Your task to perform on an android device: turn on sleep mode Image 0: 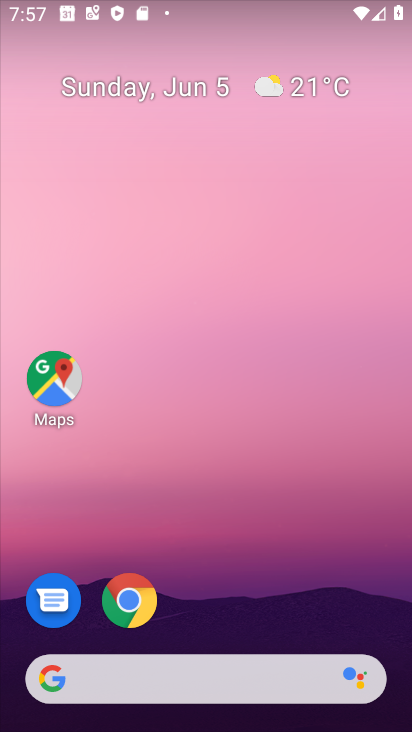
Step 0: drag from (238, 563) to (237, 0)
Your task to perform on an android device: turn on sleep mode Image 1: 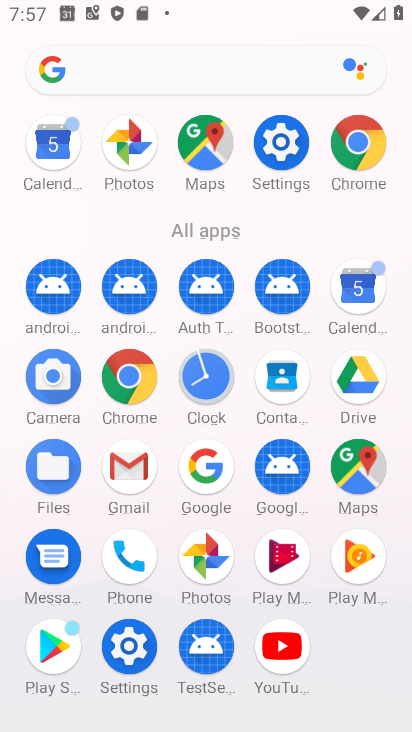
Step 1: click (277, 133)
Your task to perform on an android device: turn on sleep mode Image 2: 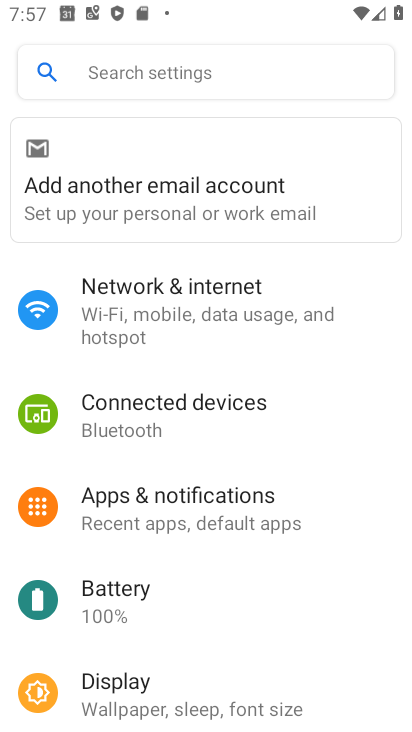
Step 2: click (208, 689)
Your task to perform on an android device: turn on sleep mode Image 3: 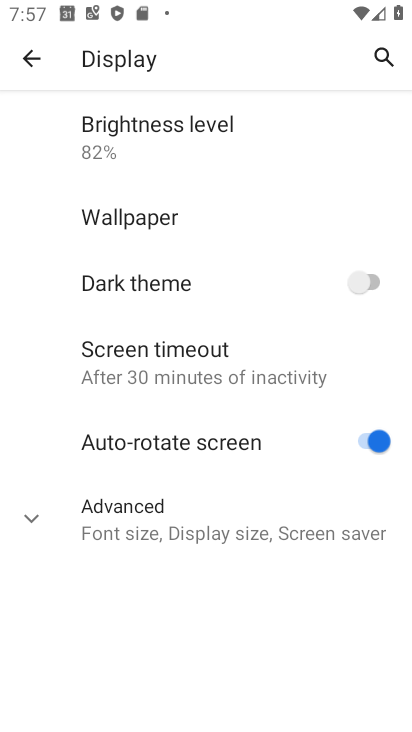
Step 3: click (29, 516)
Your task to perform on an android device: turn on sleep mode Image 4: 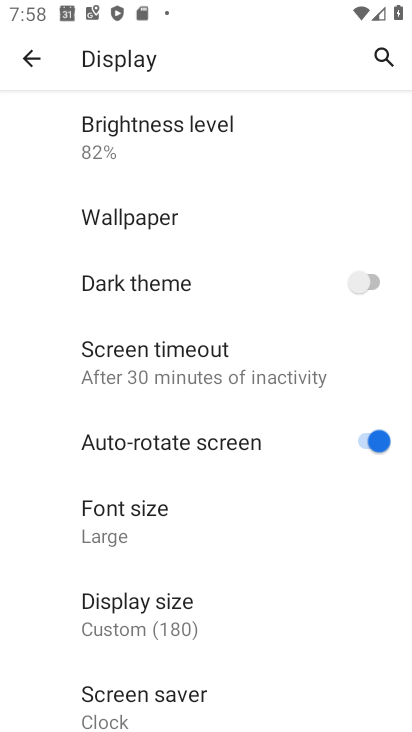
Step 4: task complete